Your task to perform on an android device: When is my next meeting? Image 0: 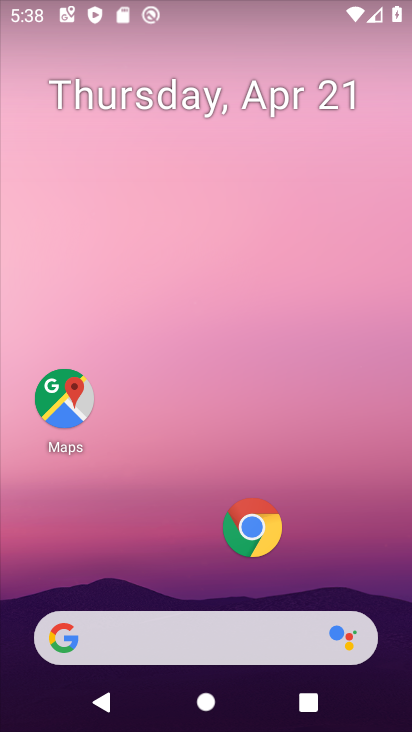
Step 0: drag from (181, 522) to (267, 50)
Your task to perform on an android device: When is my next meeting? Image 1: 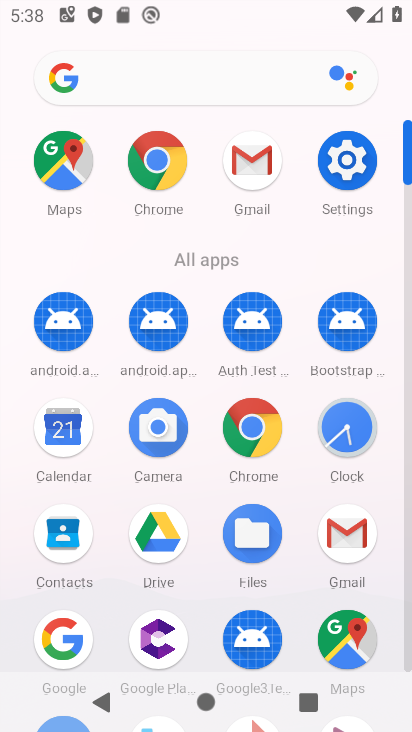
Step 1: click (64, 434)
Your task to perform on an android device: When is my next meeting? Image 2: 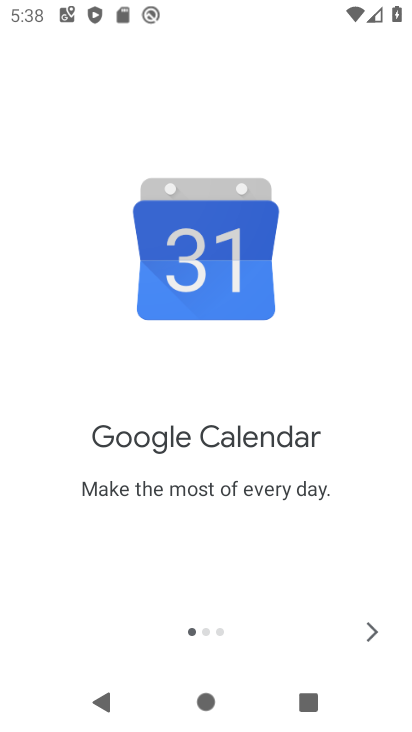
Step 2: click (361, 619)
Your task to perform on an android device: When is my next meeting? Image 3: 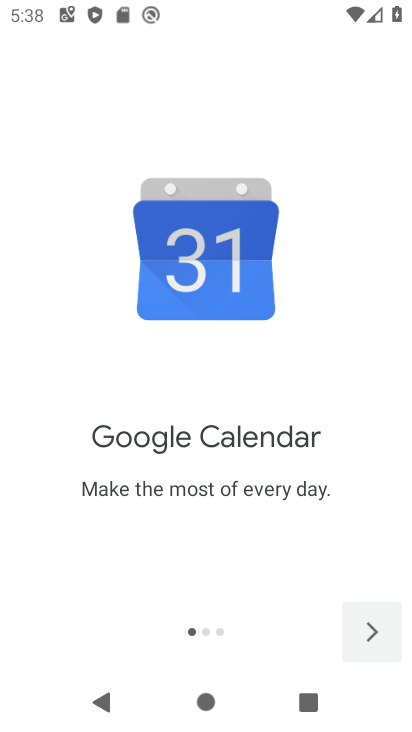
Step 3: click (368, 621)
Your task to perform on an android device: When is my next meeting? Image 4: 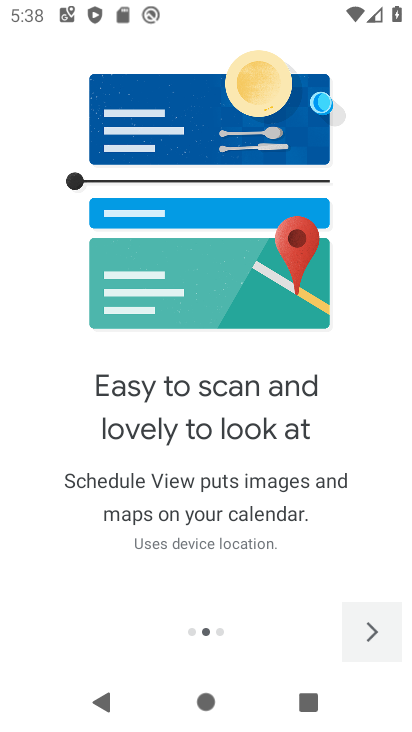
Step 4: click (368, 621)
Your task to perform on an android device: When is my next meeting? Image 5: 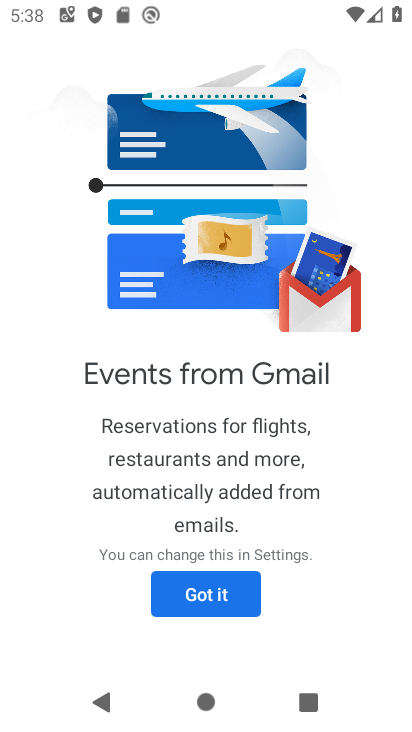
Step 5: click (194, 584)
Your task to perform on an android device: When is my next meeting? Image 6: 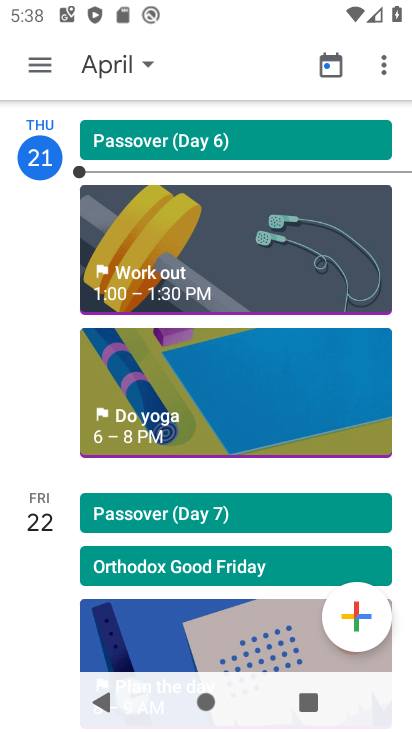
Step 6: click (39, 61)
Your task to perform on an android device: When is my next meeting? Image 7: 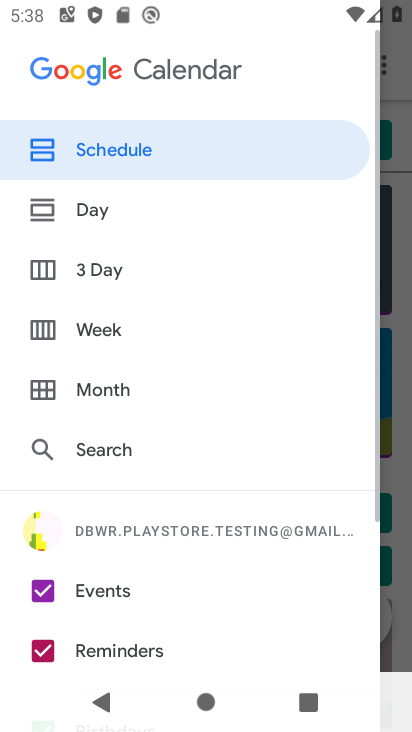
Step 7: click (111, 151)
Your task to perform on an android device: When is my next meeting? Image 8: 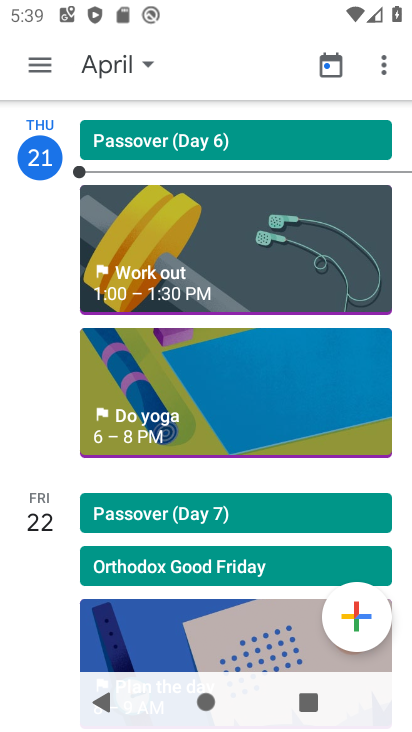
Step 8: task complete